Your task to perform on an android device: Open Wikipedia Image 0: 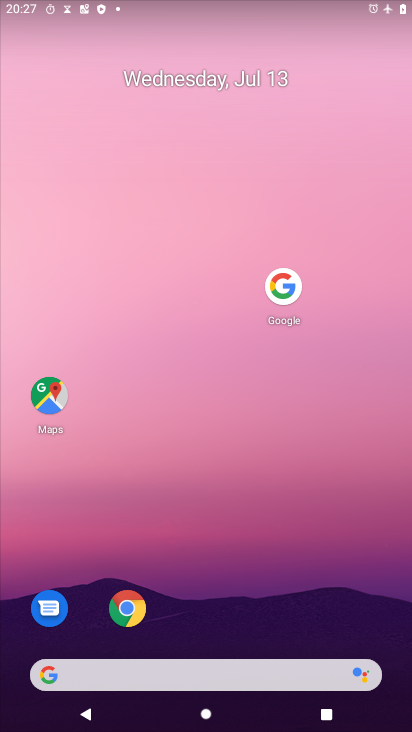
Step 0: click (132, 624)
Your task to perform on an android device: Open Wikipedia Image 1: 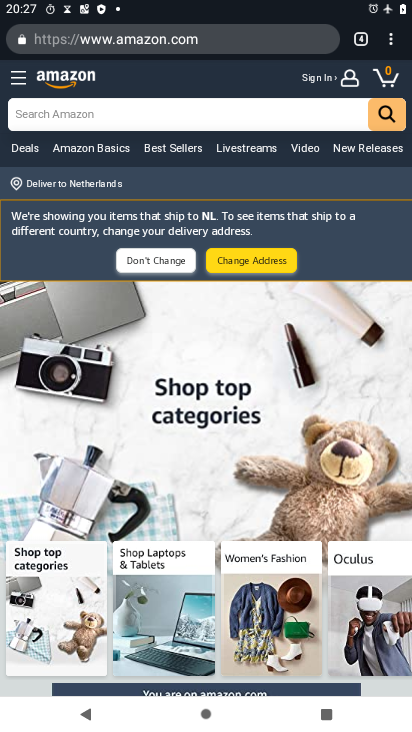
Step 1: click (361, 37)
Your task to perform on an android device: Open Wikipedia Image 2: 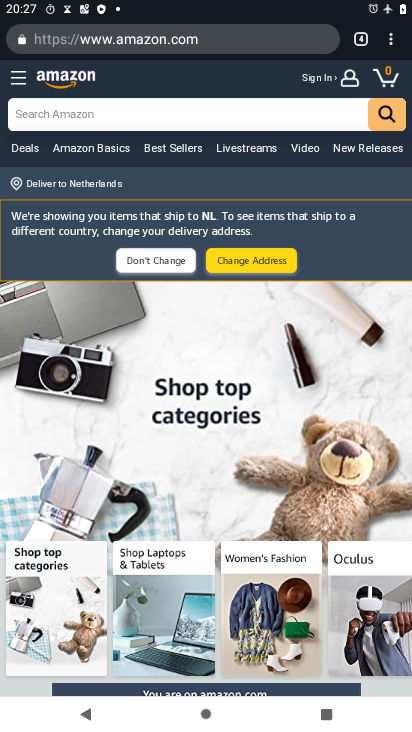
Step 2: click (364, 38)
Your task to perform on an android device: Open Wikipedia Image 3: 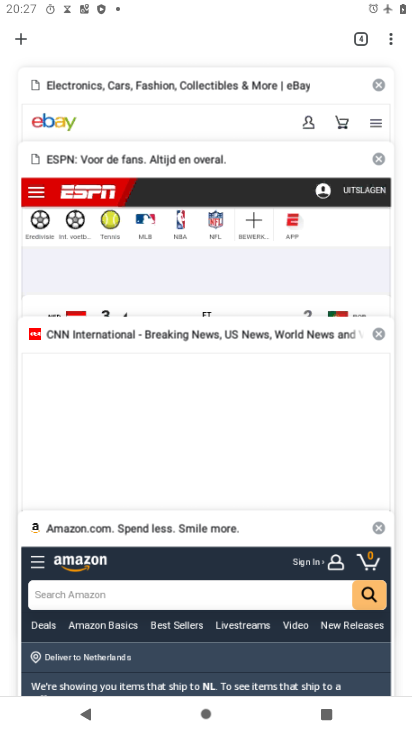
Step 3: click (19, 35)
Your task to perform on an android device: Open Wikipedia Image 4: 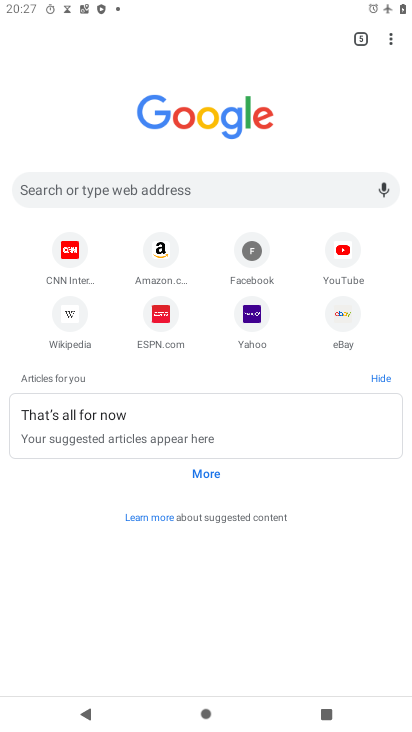
Step 4: click (75, 319)
Your task to perform on an android device: Open Wikipedia Image 5: 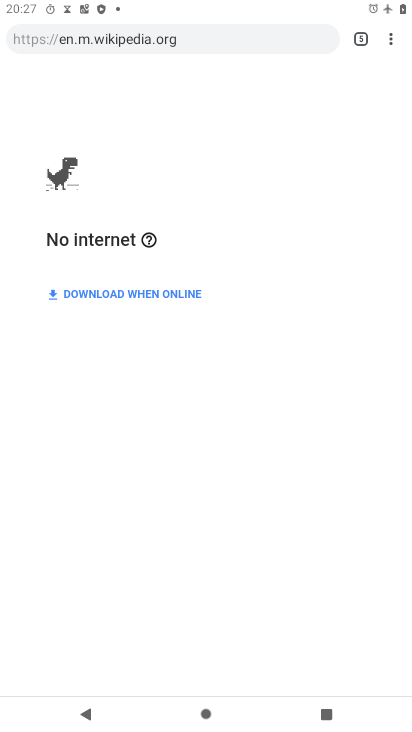
Step 5: task complete